Your task to perform on an android device: Open Chrome and go to the settings page Image 0: 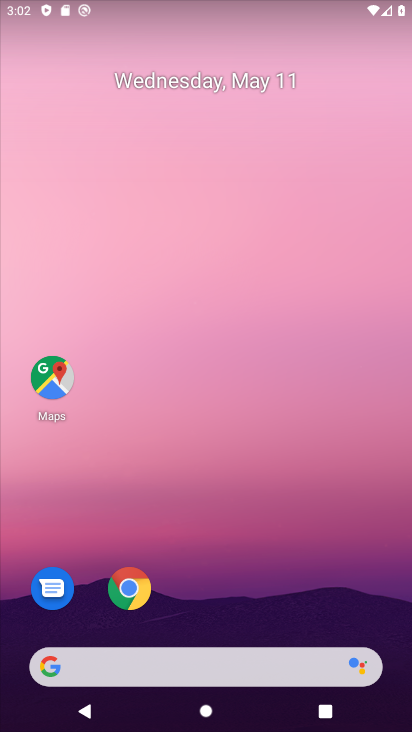
Step 0: drag from (228, 608) to (227, 22)
Your task to perform on an android device: Open Chrome and go to the settings page Image 1: 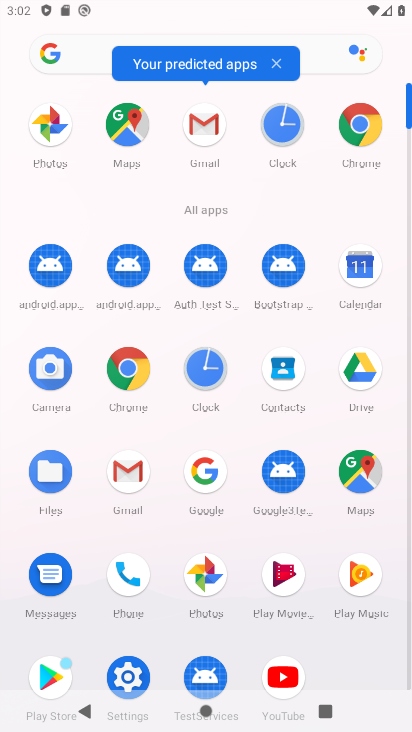
Step 1: click (135, 680)
Your task to perform on an android device: Open Chrome and go to the settings page Image 2: 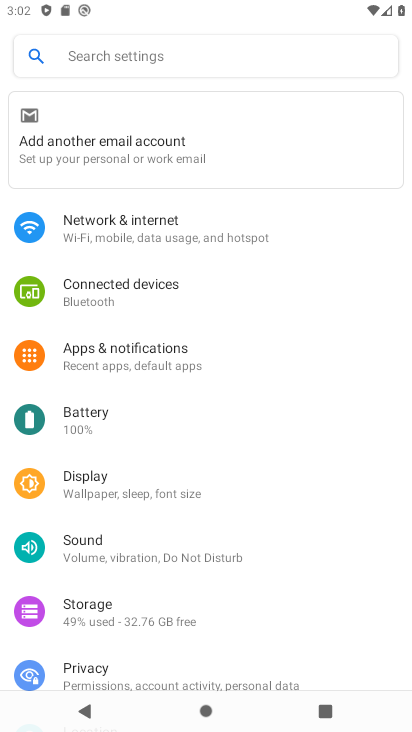
Step 2: press home button
Your task to perform on an android device: Open Chrome and go to the settings page Image 3: 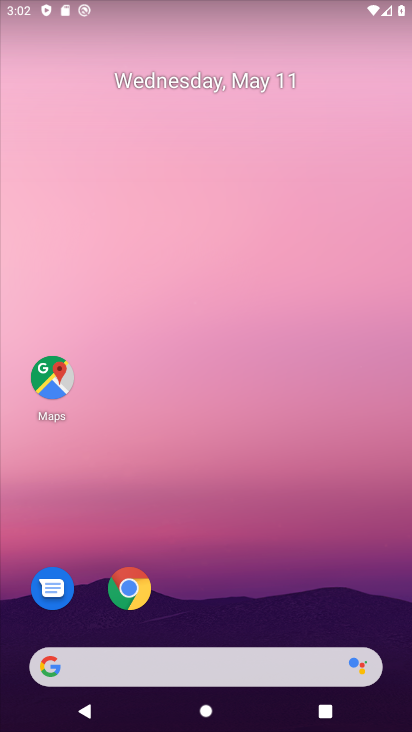
Step 3: click (140, 593)
Your task to perform on an android device: Open Chrome and go to the settings page Image 4: 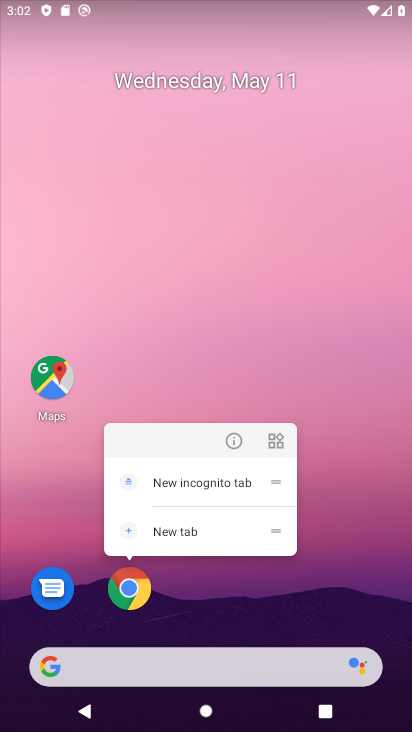
Step 4: click (135, 597)
Your task to perform on an android device: Open Chrome and go to the settings page Image 5: 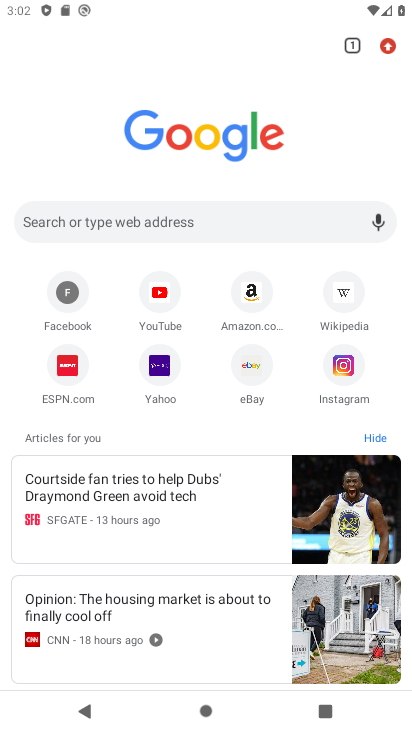
Step 5: click (387, 48)
Your task to perform on an android device: Open Chrome and go to the settings page Image 6: 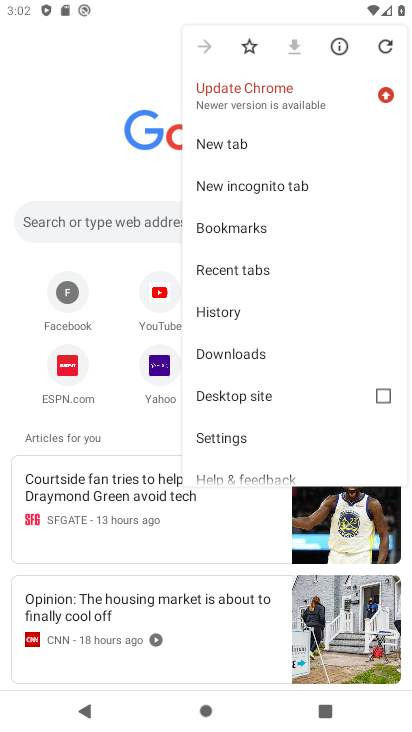
Step 6: click (232, 432)
Your task to perform on an android device: Open Chrome and go to the settings page Image 7: 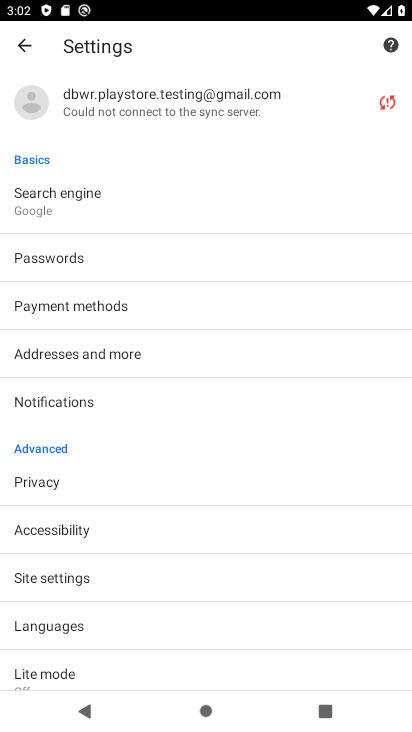
Step 7: task complete